Your task to perform on an android device: open device folders in google photos Image 0: 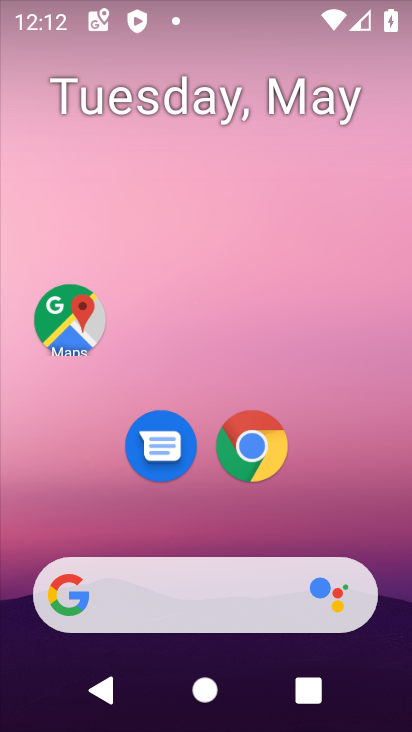
Step 0: drag from (365, 510) to (389, 7)
Your task to perform on an android device: open device folders in google photos Image 1: 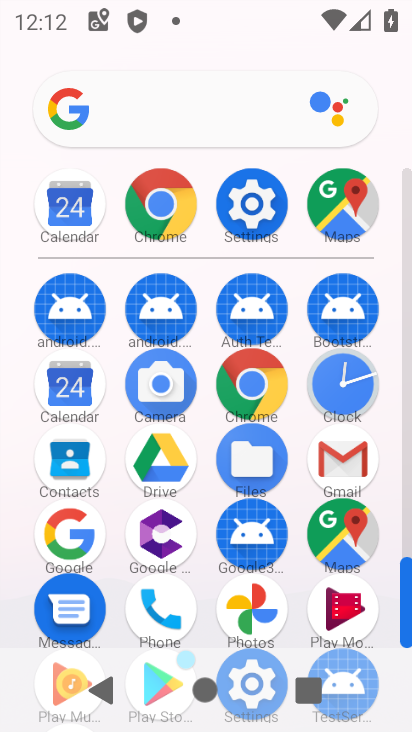
Step 1: drag from (379, 492) to (398, 109)
Your task to perform on an android device: open device folders in google photos Image 2: 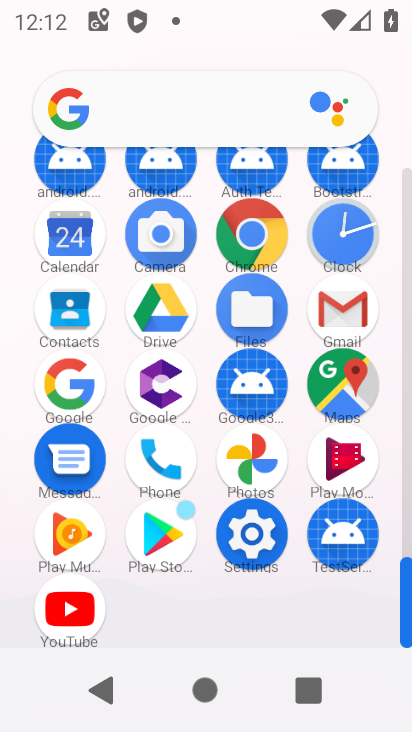
Step 2: click (271, 461)
Your task to perform on an android device: open device folders in google photos Image 3: 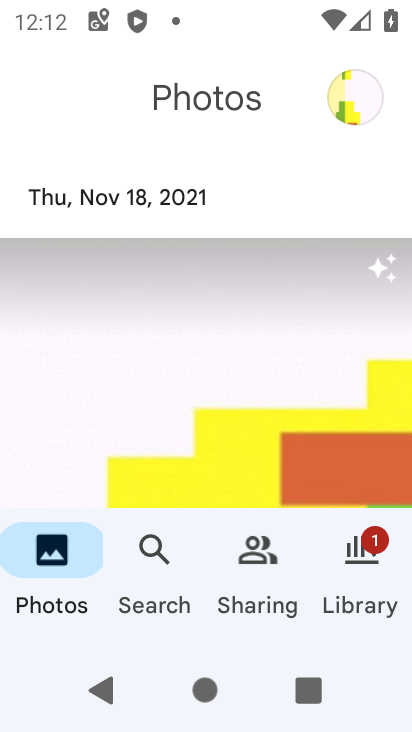
Step 3: task complete